Your task to perform on an android device: set an alarm Image 0: 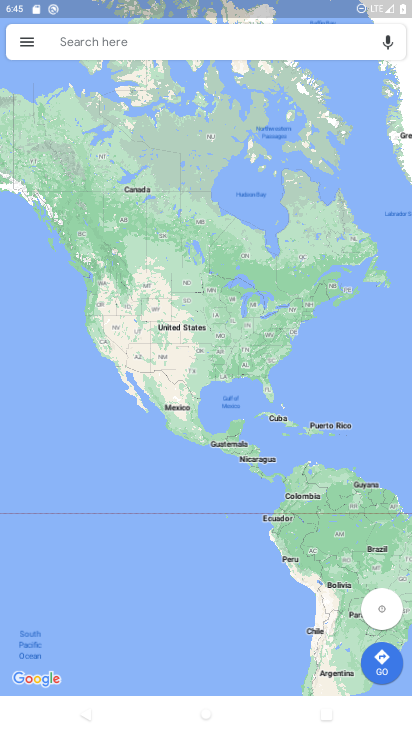
Step 0: press home button
Your task to perform on an android device: set an alarm Image 1: 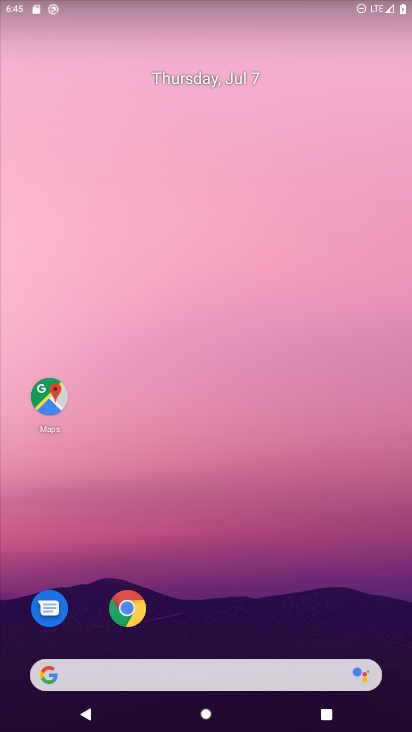
Step 1: drag from (287, 629) to (318, 251)
Your task to perform on an android device: set an alarm Image 2: 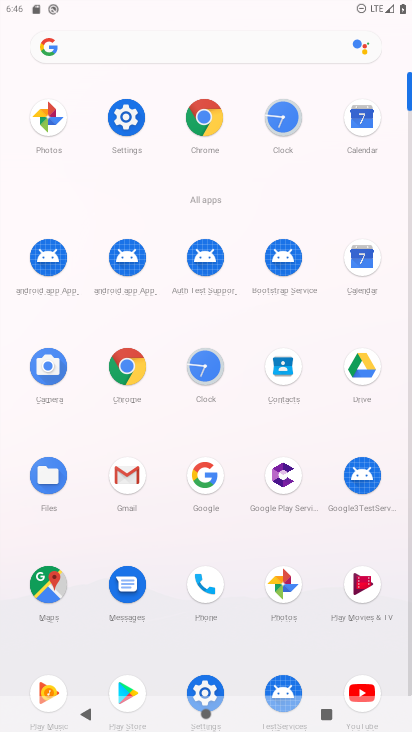
Step 2: click (298, 125)
Your task to perform on an android device: set an alarm Image 3: 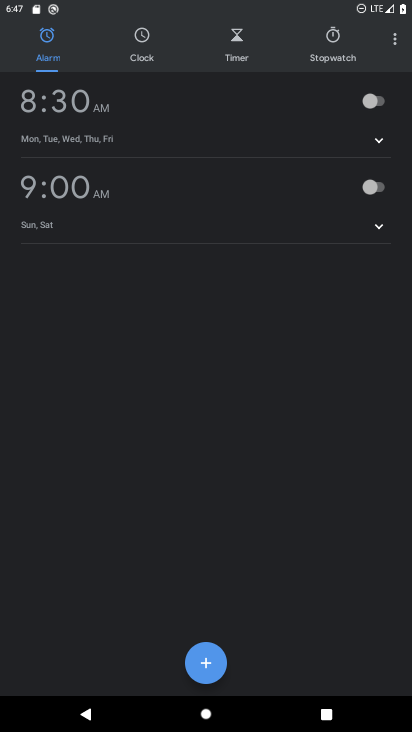
Step 3: click (206, 661)
Your task to perform on an android device: set an alarm Image 4: 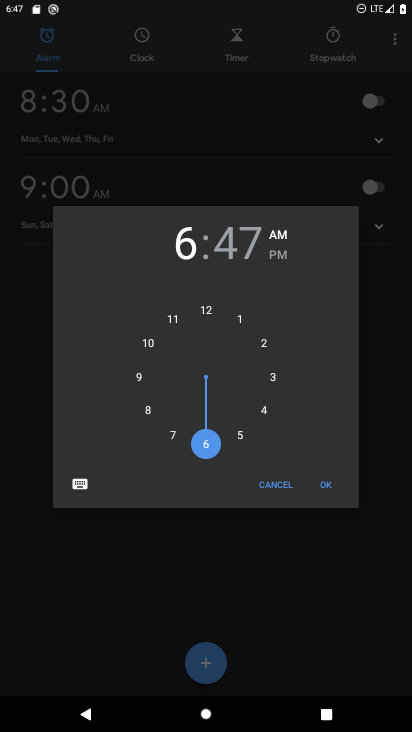
Step 4: click (322, 491)
Your task to perform on an android device: set an alarm Image 5: 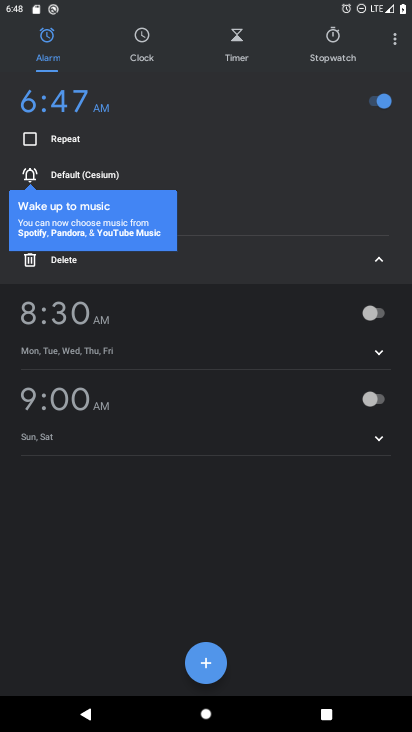
Step 5: task complete